Your task to perform on an android device: Open Android settings Image 0: 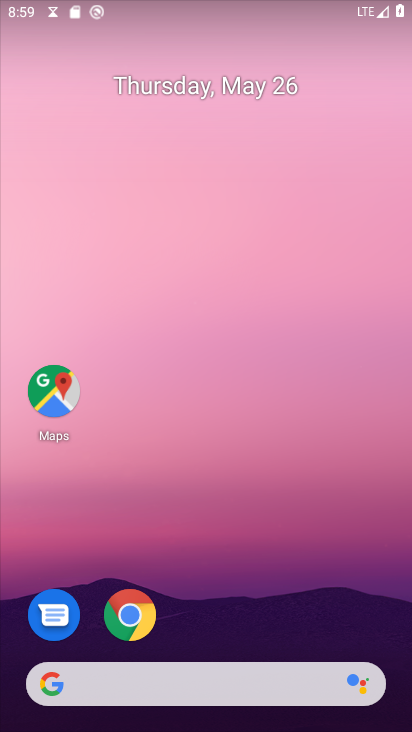
Step 0: drag from (251, 448) to (279, 182)
Your task to perform on an android device: Open Android settings Image 1: 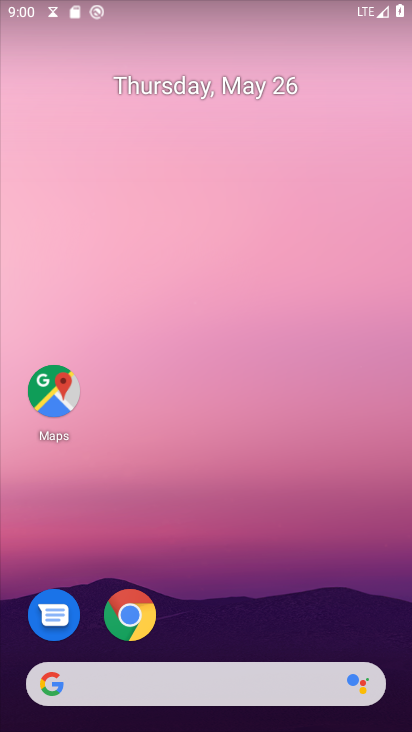
Step 1: drag from (215, 588) to (236, 199)
Your task to perform on an android device: Open Android settings Image 2: 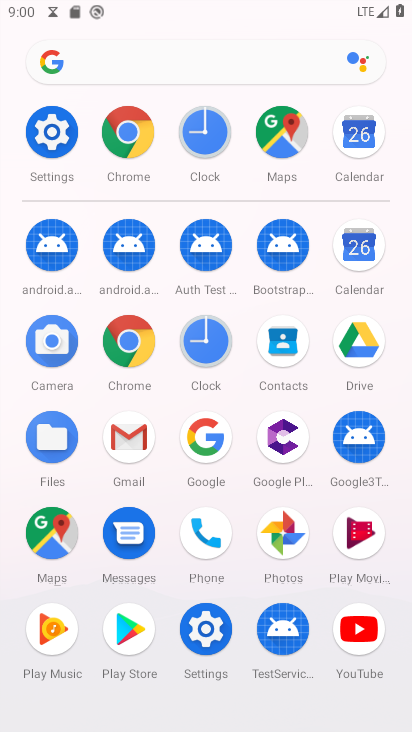
Step 2: click (47, 133)
Your task to perform on an android device: Open Android settings Image 3: 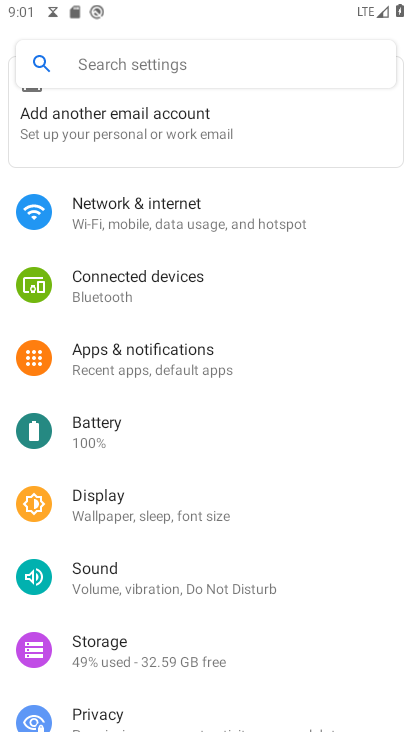
Step 3: task complete